Your task to perform on an android device: What's the time? Image 0: 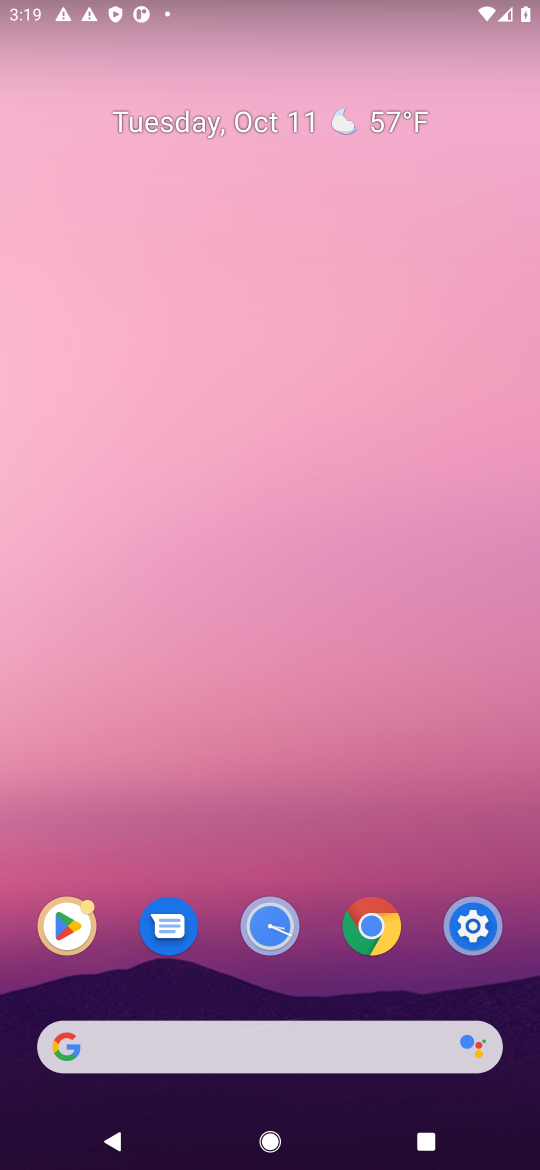
Step 0: press home button
Your task to perform on an android device: What's the time? Image 1: 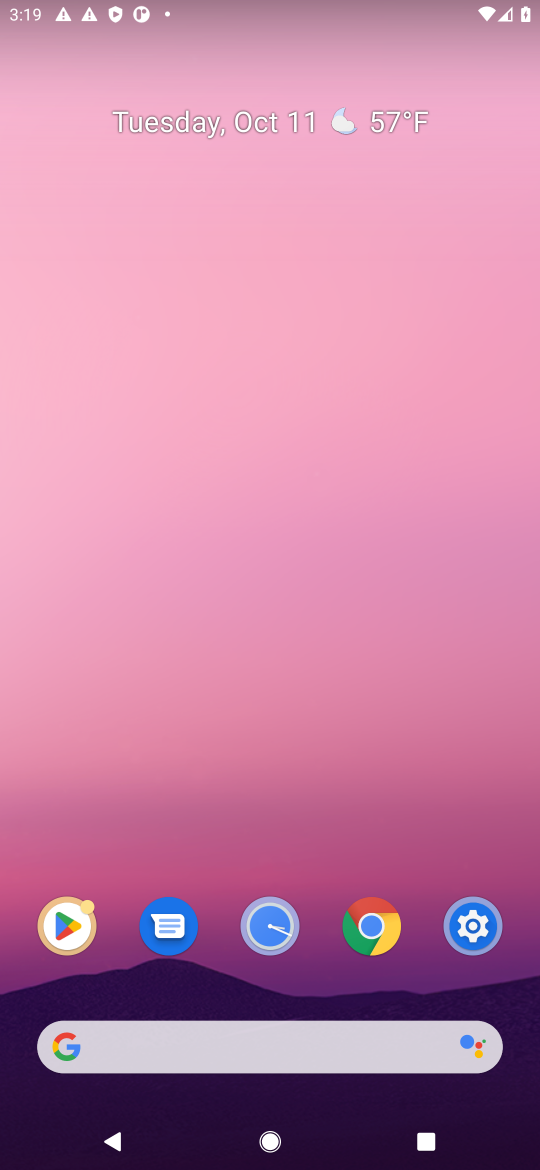
Step 1: click (401, 123)
Your task to perform on an android device: What's the time? Image 2: 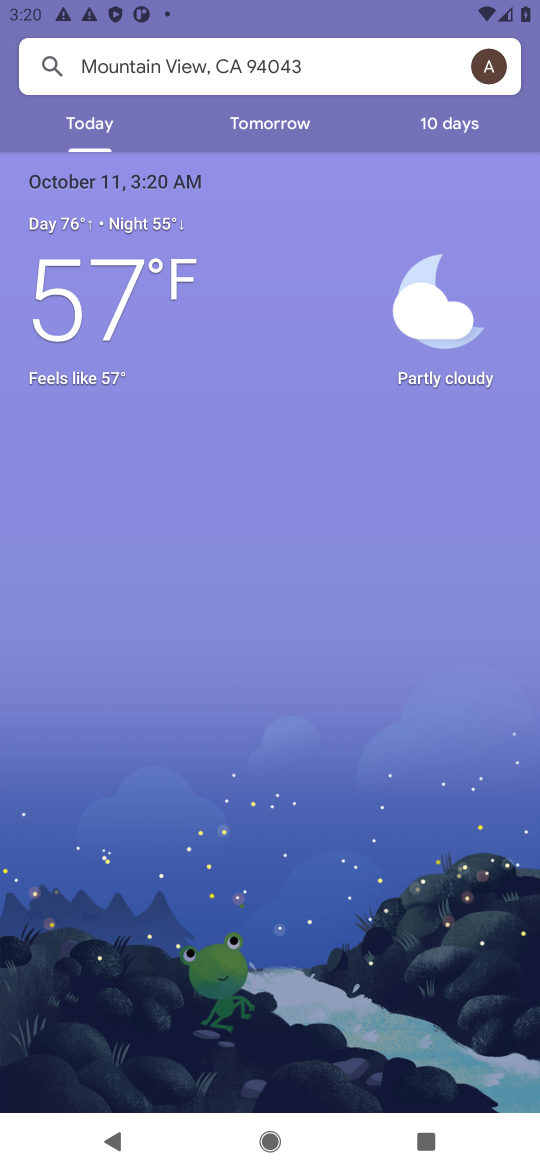
Step 2: press home button
Your task to perform on an android device: What's the time? Image 3: 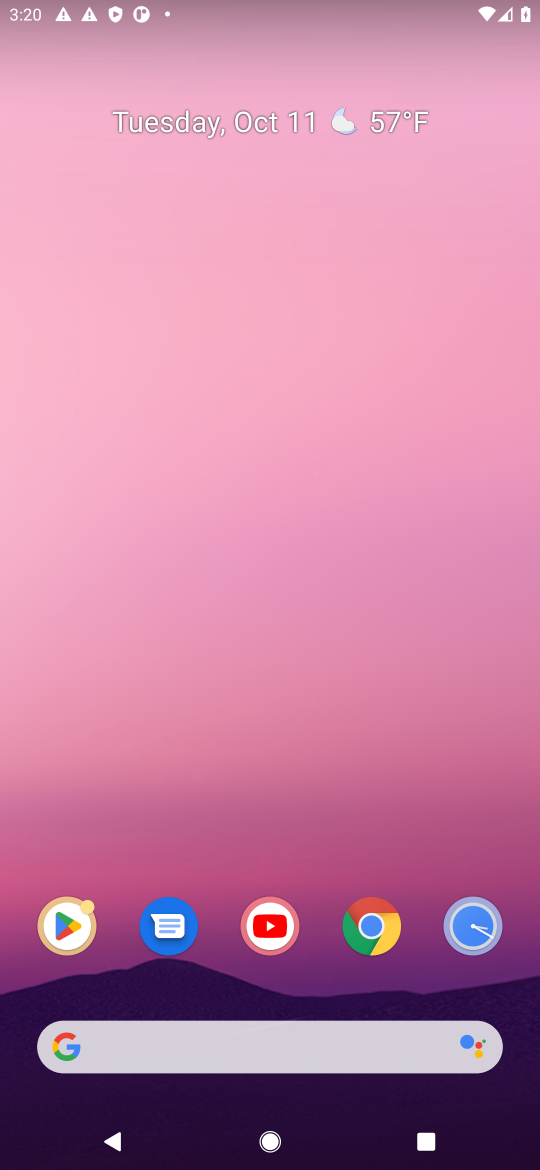
Step 3: click (479, 931)
Your task to perform on an android device: What's the time? Image 4: 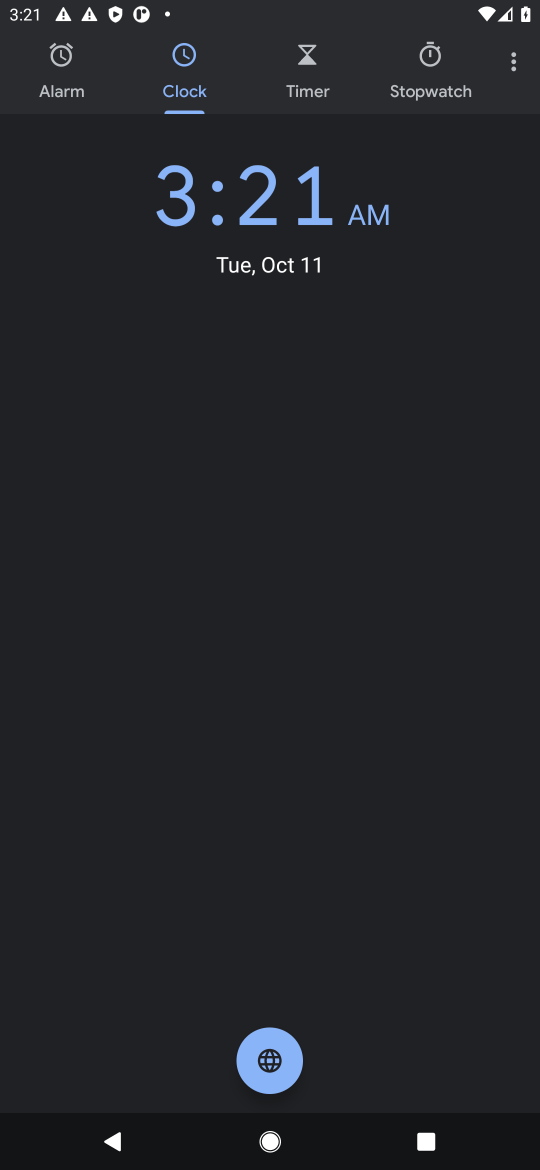
Step 4: task complete